Your task to perform on an android device: turn off airplane mode Image 0: 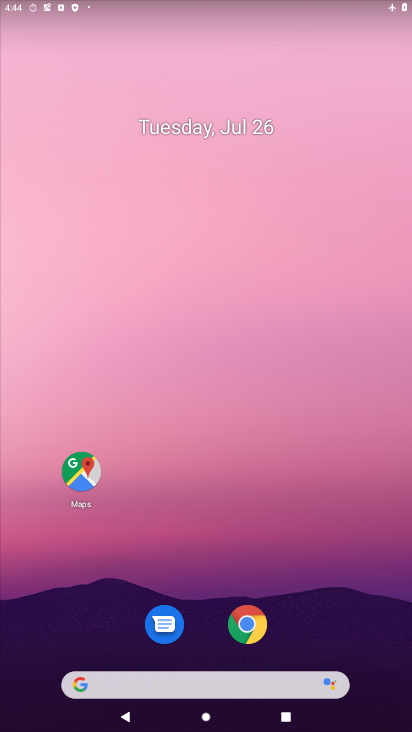
Step 0: drag from (225, 684) to (239, 18)
Your task to perform on an android device: turn off airplane mode Image 1: 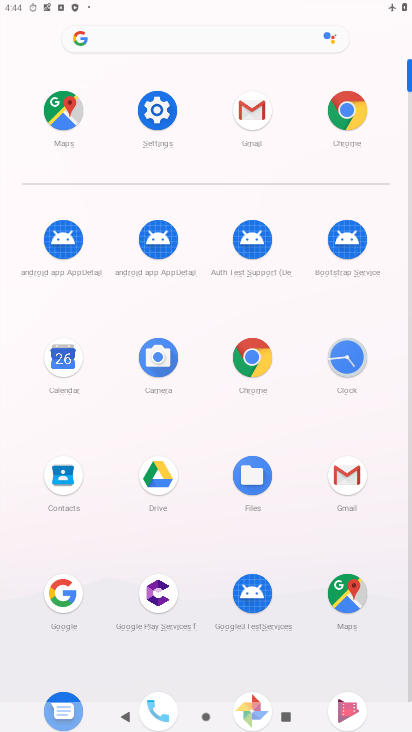
Step 1: click (151, 124)
Your task to perform on an android device: turn off airplane mode Image 2: 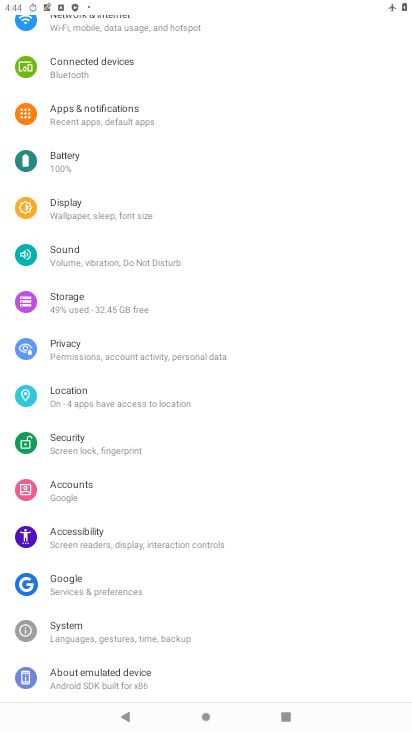
Step 2: drag from (150, 103) to (158, 171)
Your task to perform on an android device: turn off airplane mode Image 3: 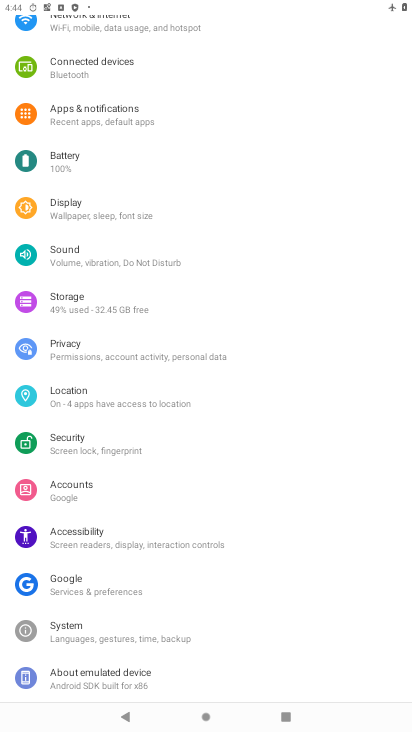
Step 3: drag from (93, 88) to (145, 367)
Your task to perform on an android device: turn off airplane mode Image 4: 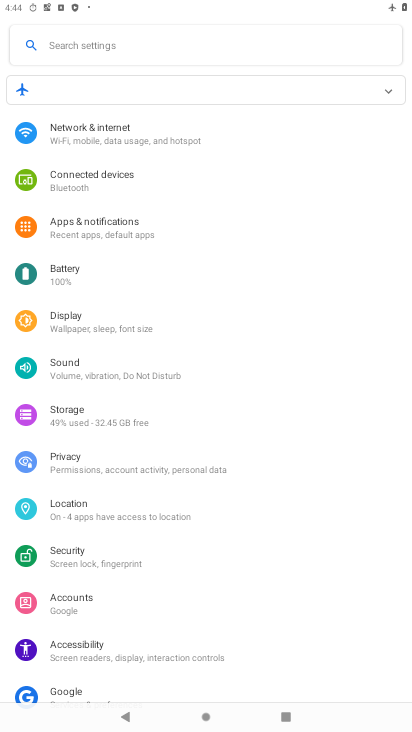
Step 4: click (191, 133)
Your task to perform on an android device: turn off airplane mode Image 5: 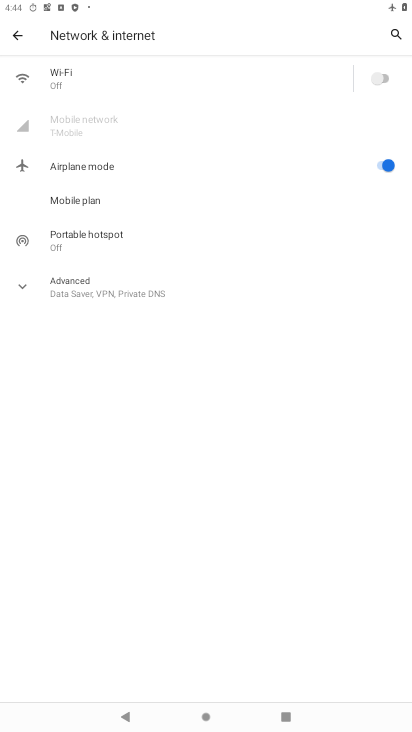
Step 5: click (378, 165)
Your task to perform on an android device: turn off airplane mode Image 6: 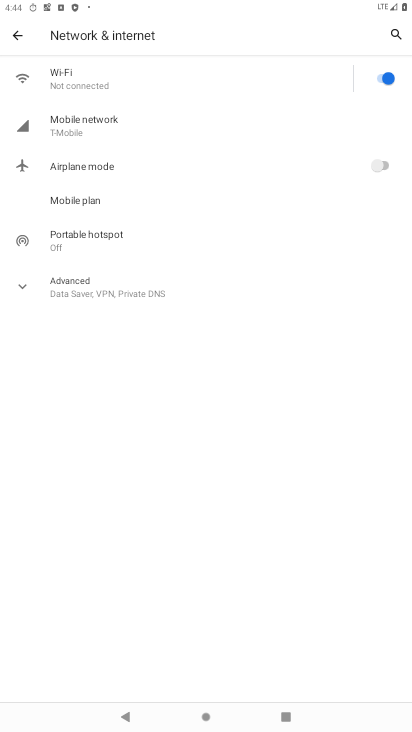
Step 6: task complete